Your task to perform on an android device: Search for hotels in Seattle Image 0: 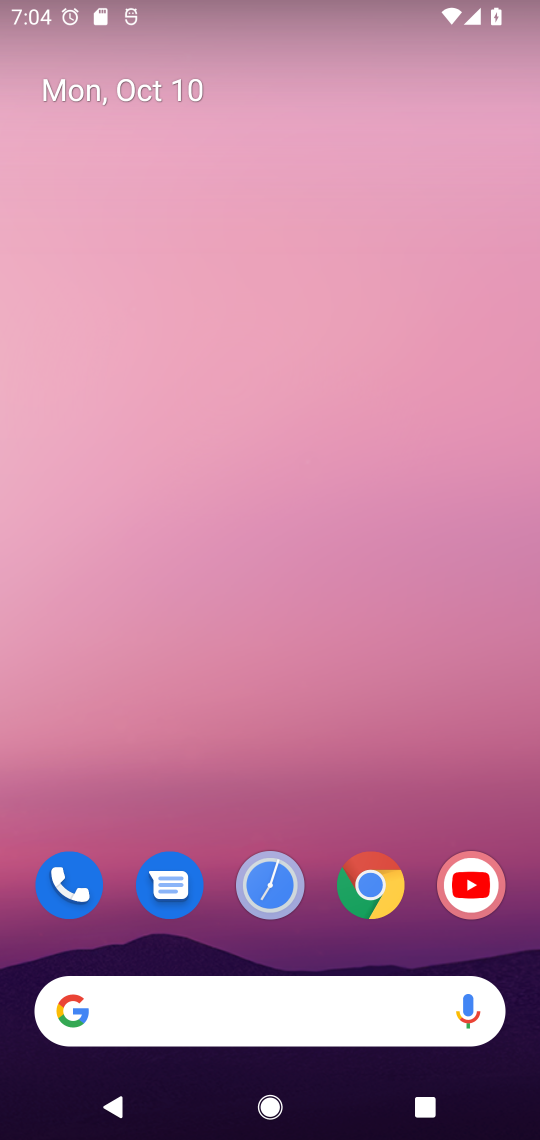
Step 0: click (360, 880)
Your task to perform on an android device: Search for hotels in Seattle Image 1: 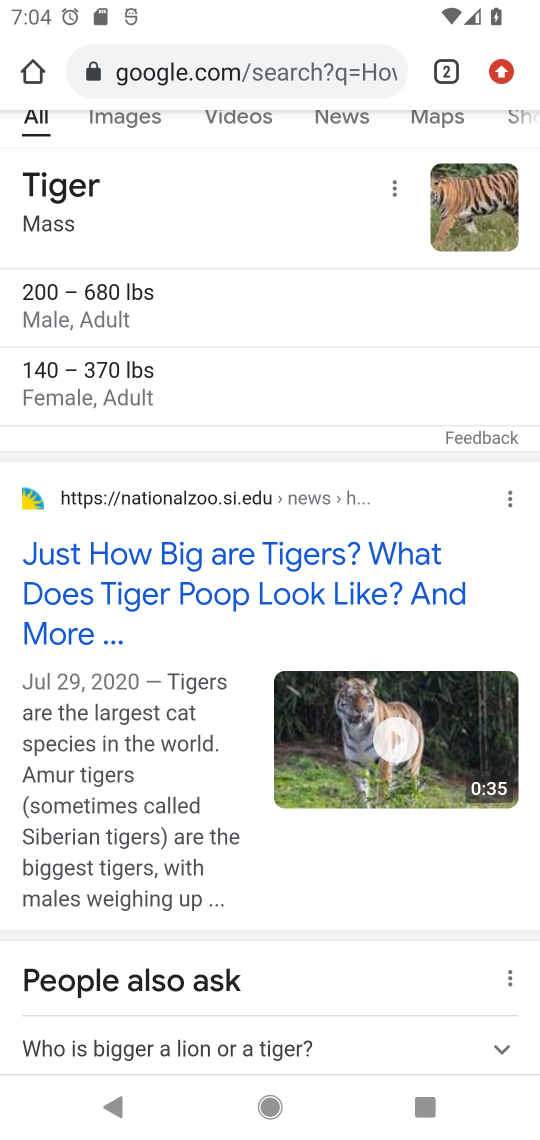
Step 1: click (263, 74)
Your task to perform on an android device: Search for hotels in Seattle Image 2: 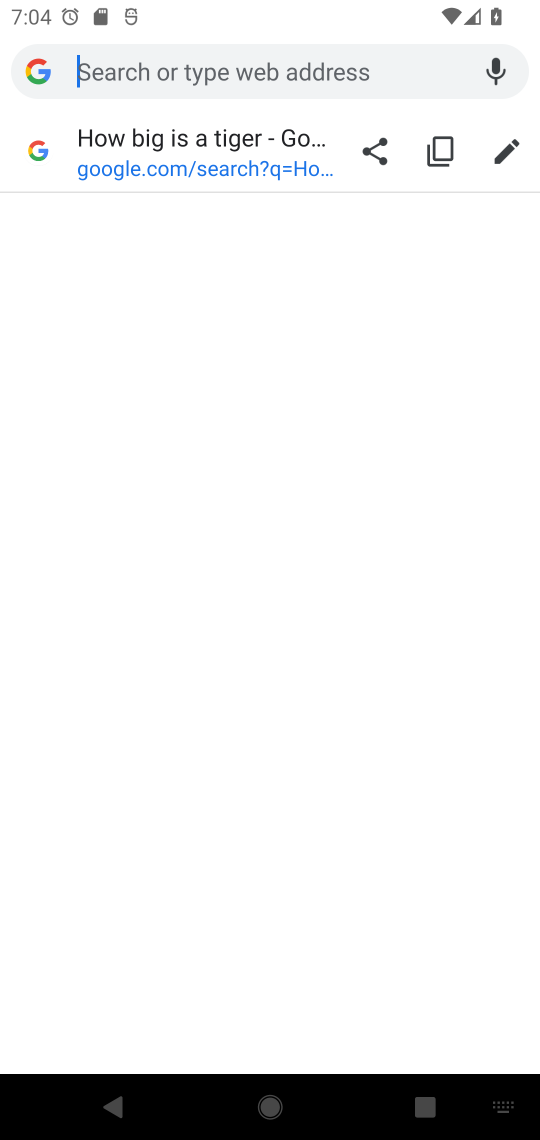
Step 2: type "hotels in Seattle"
Your task to perform on an android device: Search for hotels in Seattle Image 3: 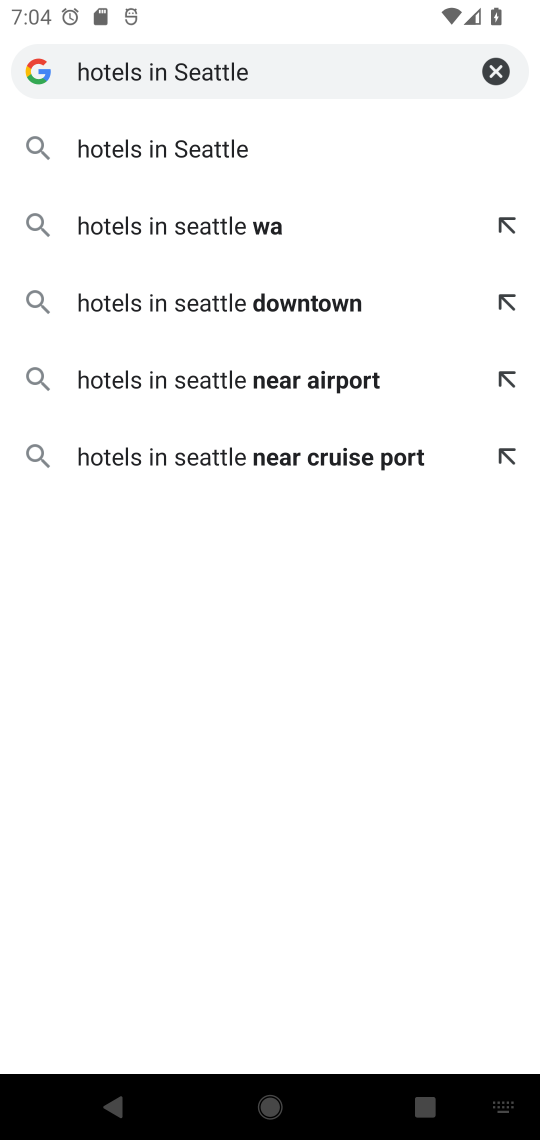
Step 3: click (184, 158)
Your task to perform on an android device: Search for hotels in Seattle Image 4: 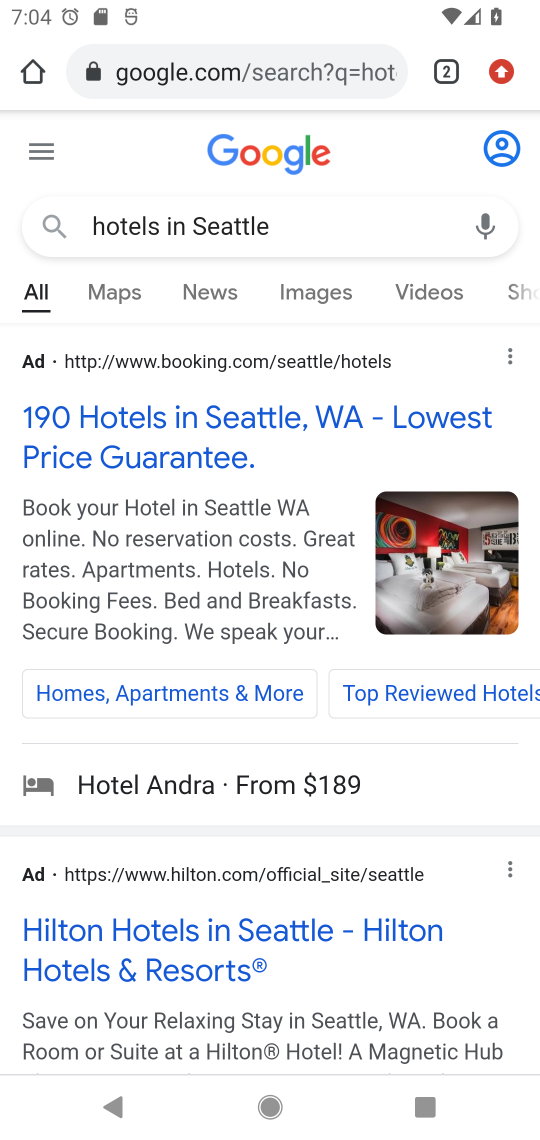
Step 4: drag from (273, 828) to (152, 284)
Your task to perform on an android device: Search for hotels in Seattle Image 5: 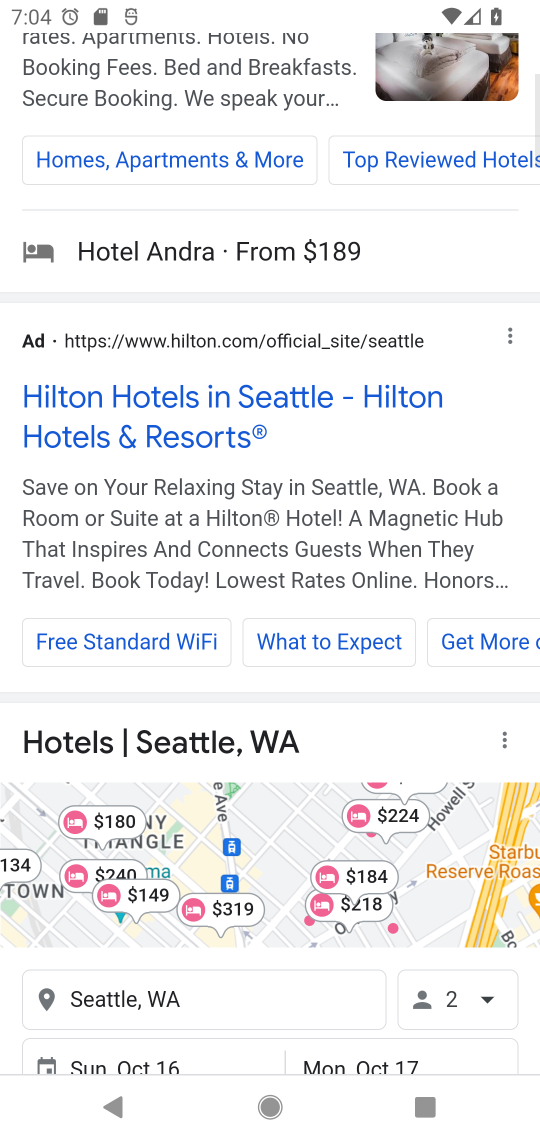
Step 5: drag from (272, 954) to (210, 159)
Your task to perform on an android device: Search for hotels in Seattle Image 6: 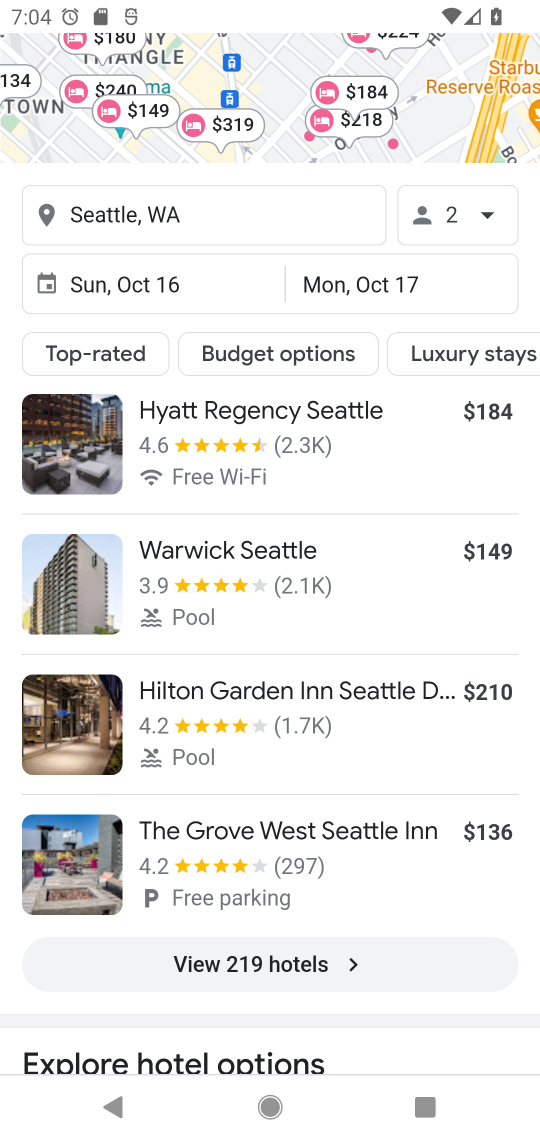
Step 6: click (274, 962)
Your task to perform on an android device: Search for hotels in Seattle Image 7: 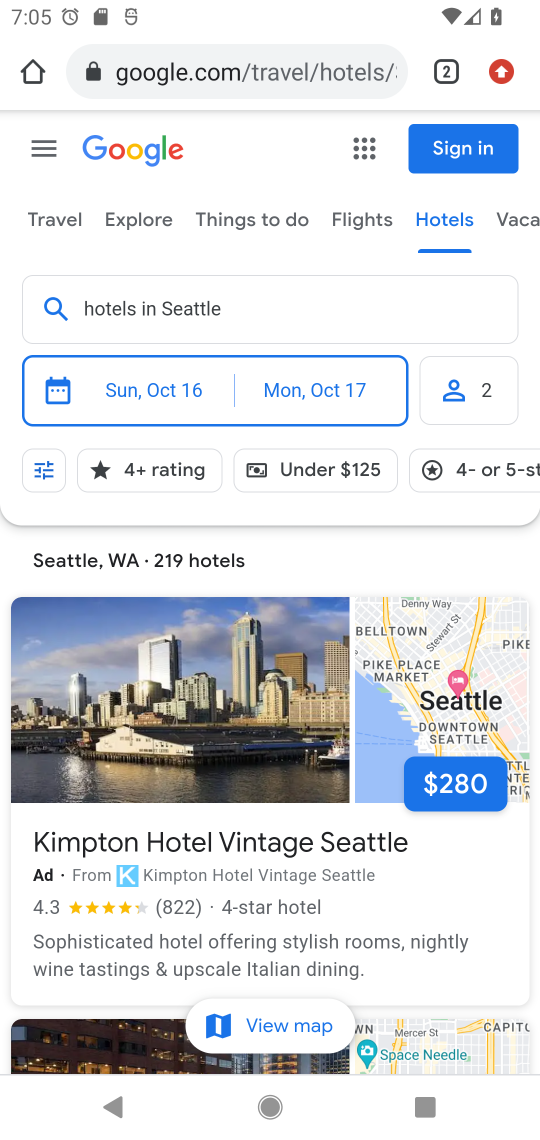
Step 7: task complete